Your task to perform on an android device: Open location settings Image 0: 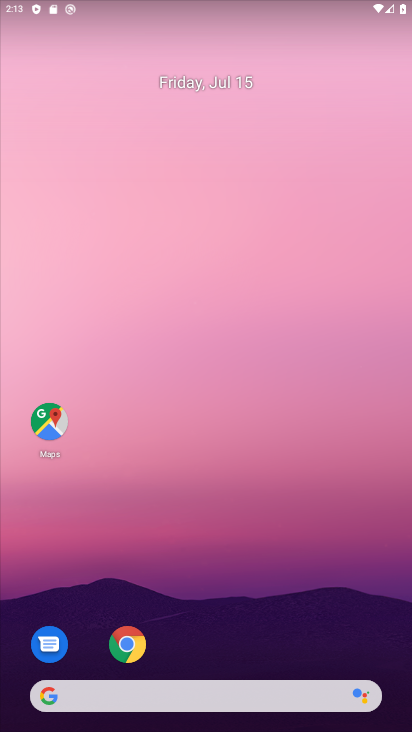
Step 0: drag from (213, 636) to (282, 2)
Your task to perform on an android device: Open location settings Image 1: 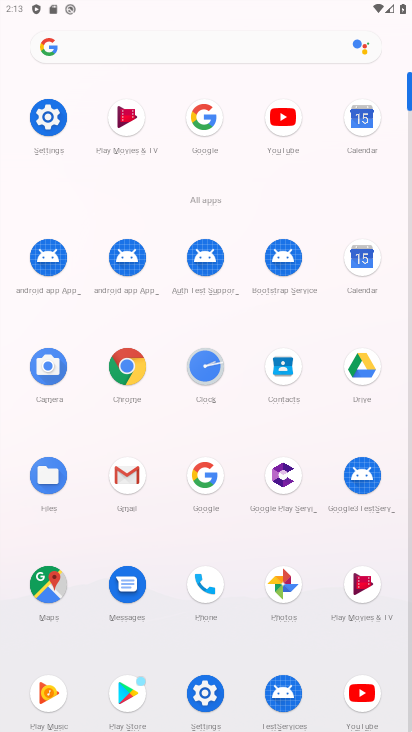
Step 1: click (51, 114)
Your task to perform on an android device: Open location settings Image 2: 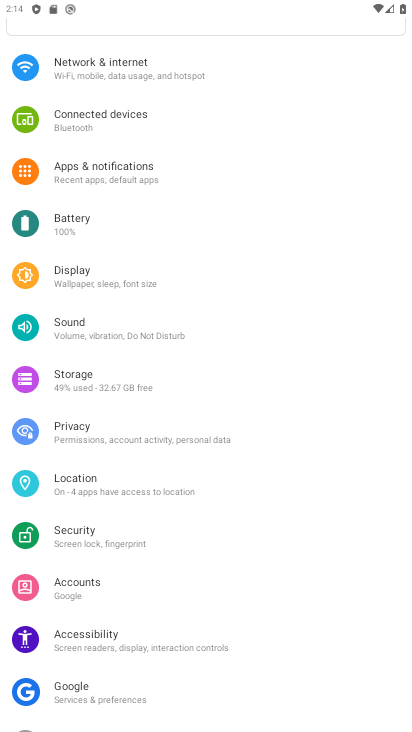
Step 2: click (89, 482)
Your task to perform on an android device: Open location settings Image 3: 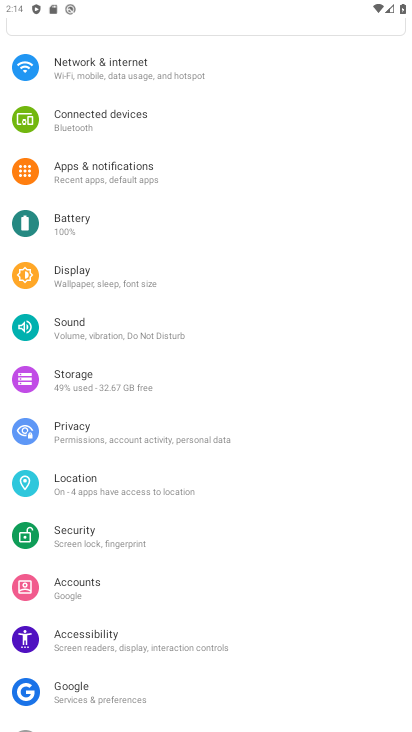
Step 3: click (94, 481)
Your task to perform on an android device: Open location settings Image 4: 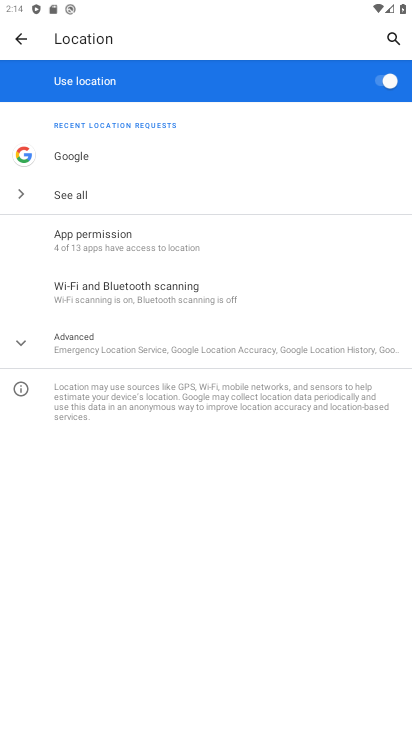
Step 4: task complete